Your task to perform on an android device: turn on javascript in the chrome app Image 0: 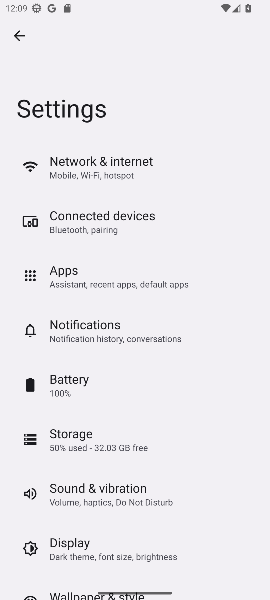
Step 0: press home button
Your task to perform on an android device: turn on javascript in the chrome app Image 1: 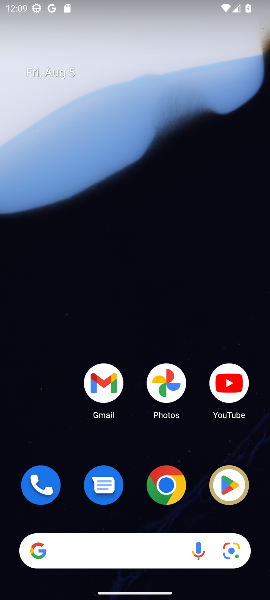
Step 1: click (164, 483)
Your task to perform on an android device: turn on javascript in the chrome app Image 2: 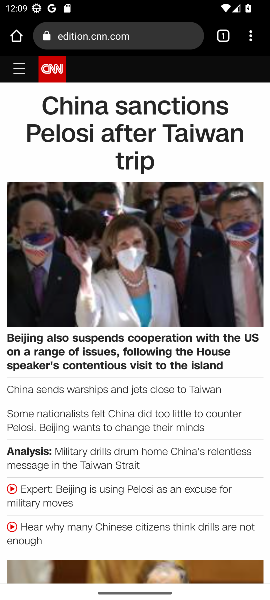
Step 2: click (253, 40)
Your task to perform on an android device: turn on javascript in the chrome app Image 3: 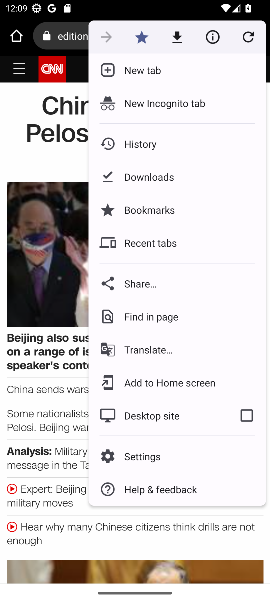
Step 3: click (147, 452)
Your task to perform on an android device: turn on javascript in the chrome app Image 4: 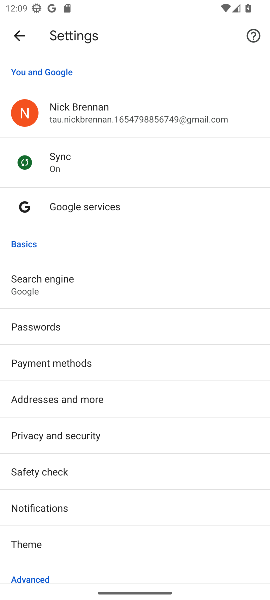
Step 4: drag from (145, 524) to (146, 253)
Your task to perform on an android device: turn on javascript in the chrome app Image 5: 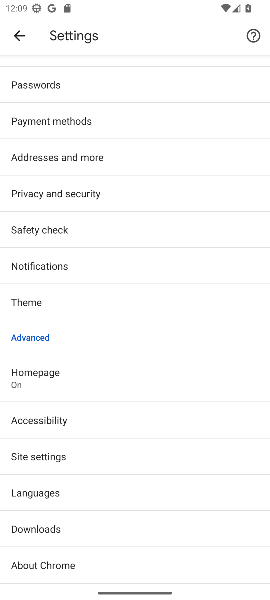
Step 5: click (43, 455)
Your task to perform on an android device: turn on javascript in the chrome app Image 6: 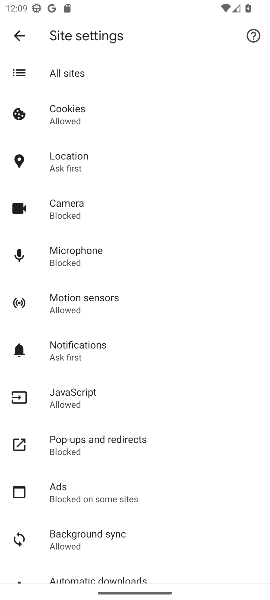
Step 6: click (76, 392)
Your task to perform on an android device: turn on javascript in the chrome app Image 7: 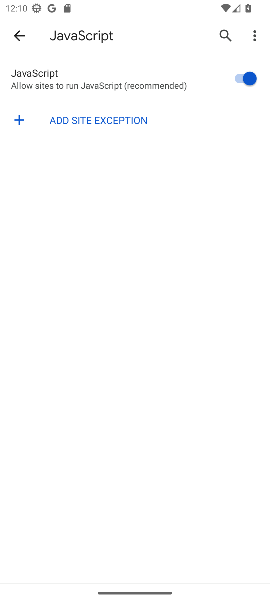
Step 7: task complete